Your task to perform on an android device: toggle wifi Image 0: 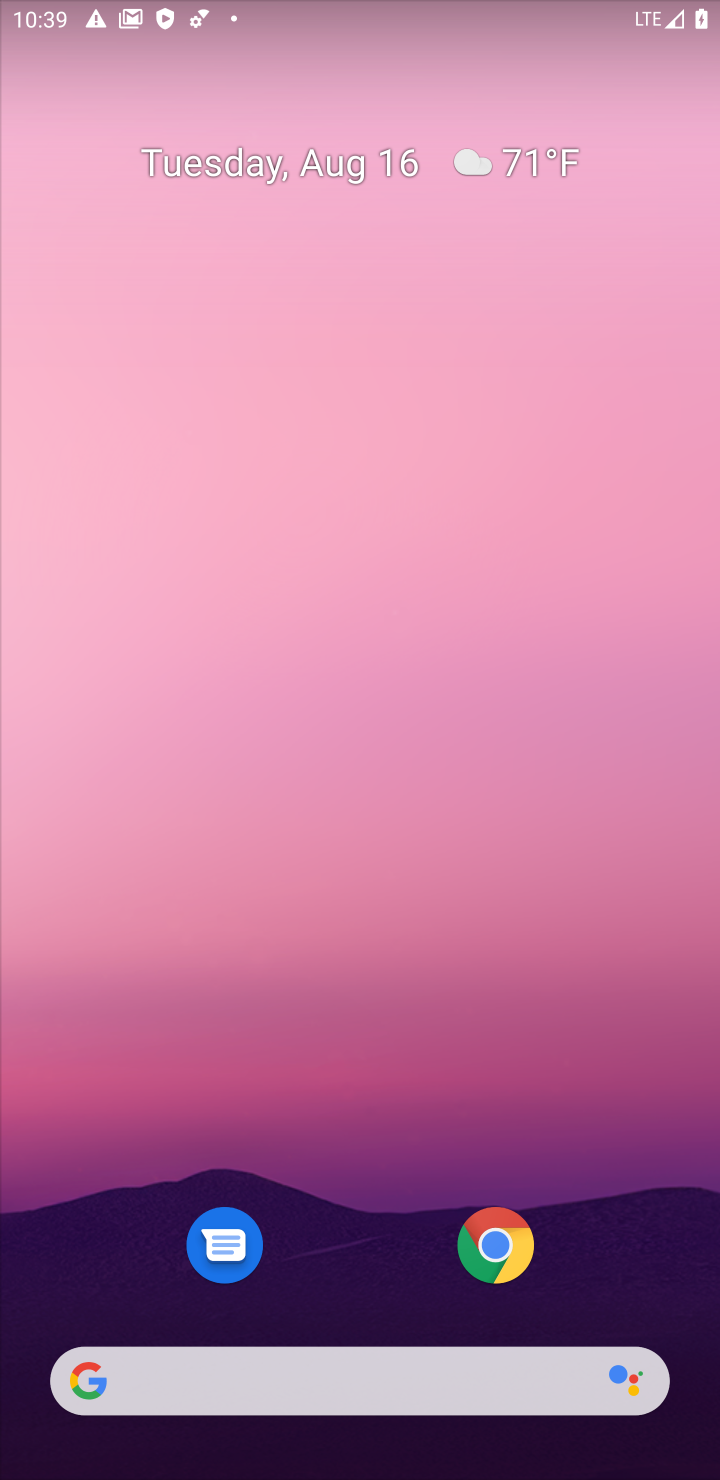
Step 0: drag from (565, 12) to (188, 1423)
Your task to perform on an android device: toggle wifi Image 1: 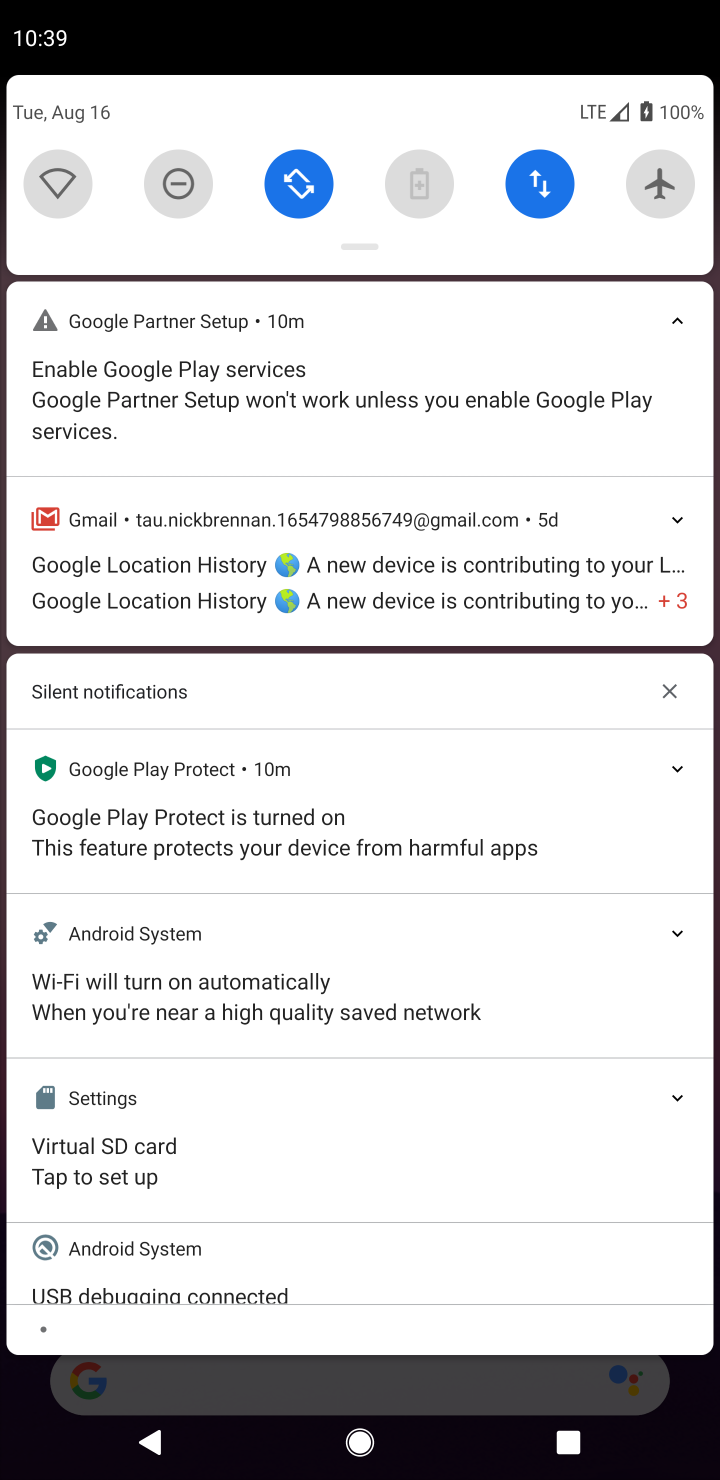
Step 1: click (64, 181)
Your task to perform on an android device: toggle wifi Image 2: 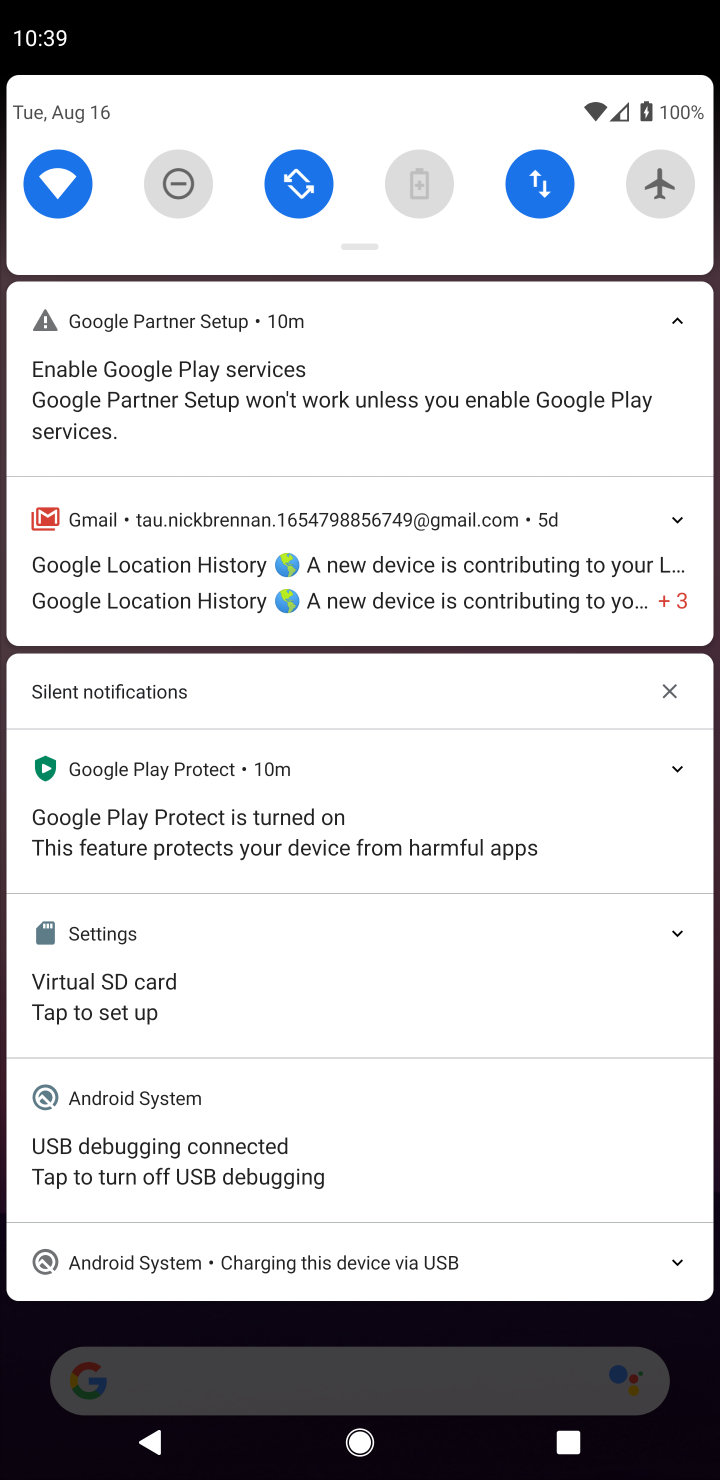
Step 2: task complete